Your task to perform on an android device: Open calendar and show me the first week of next month Image 0: 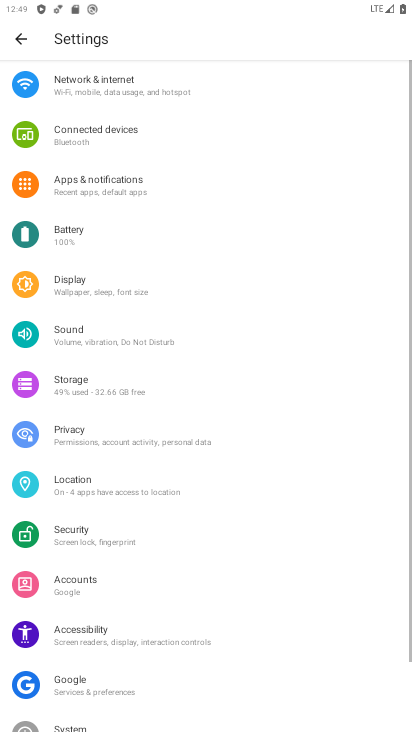
Step 0: press back button
Your task to perform on an android device: Open calendar and show me the first week of next month Image 1: 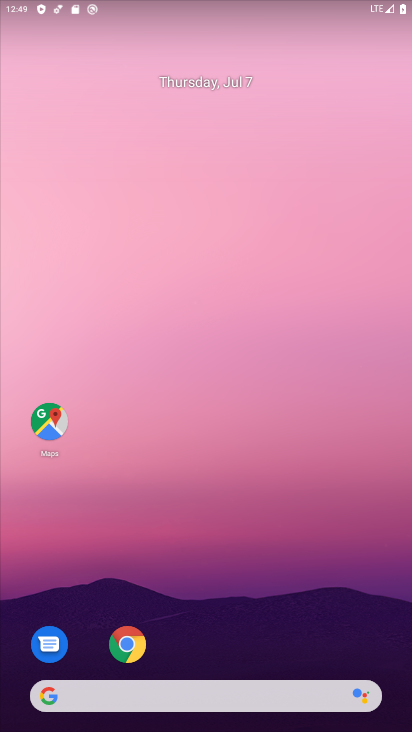
Step 1: drag from (392, 655) to (372, 133)
Your task to perform on an android device: Open calendar and show me the first week of next month Image 2: 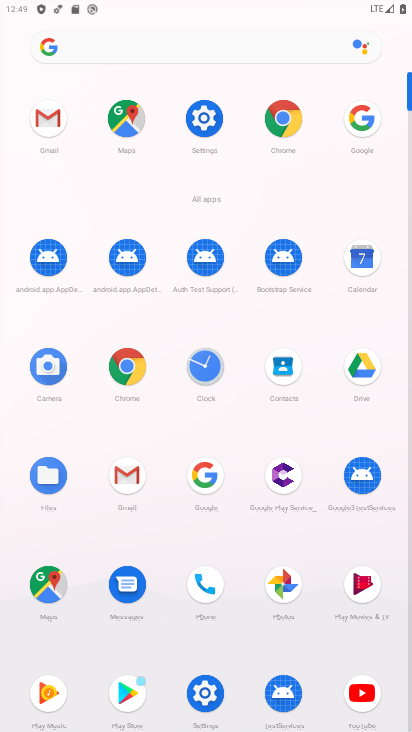
Step 2: click (368, 264)
Your task to perform on an android device: Open calendar and show me the first week of next month Image 3: 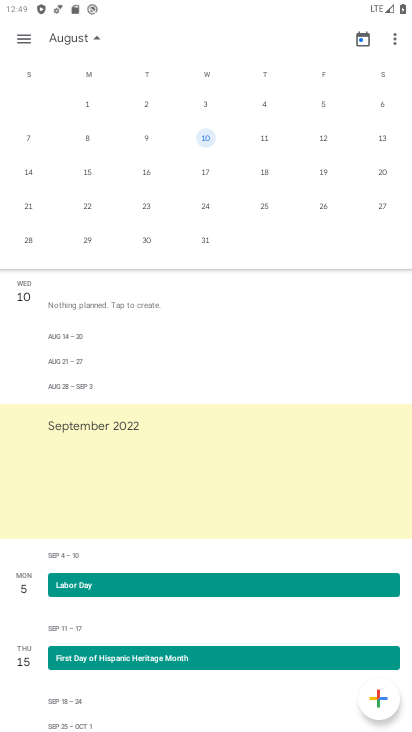
Step 3: drag from (408, 202) to (299, 204)
Your task to perform on an android device: Open calendar and show me the first week of next month Image 4: 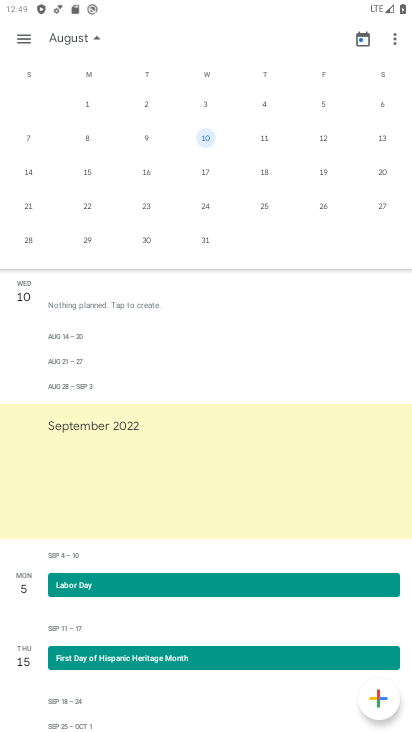
Step 4: click (266, 101)
Your task to perform on an android device: Open calendar and show me the first week of next month Image 5: 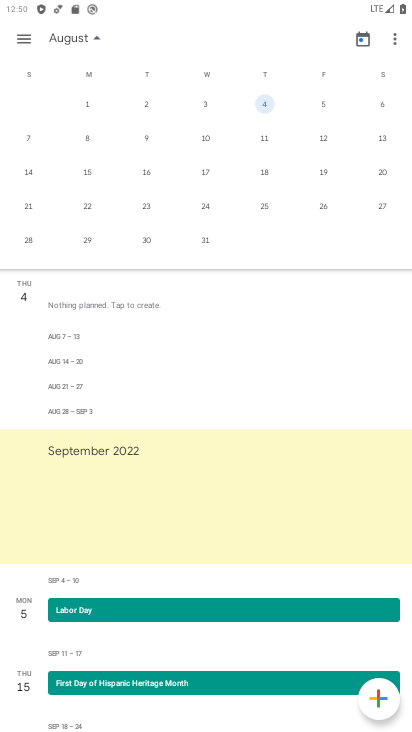
Step 5: task complete